Your task to perform on an android device: search for starred emails in the gmail app Image 0: 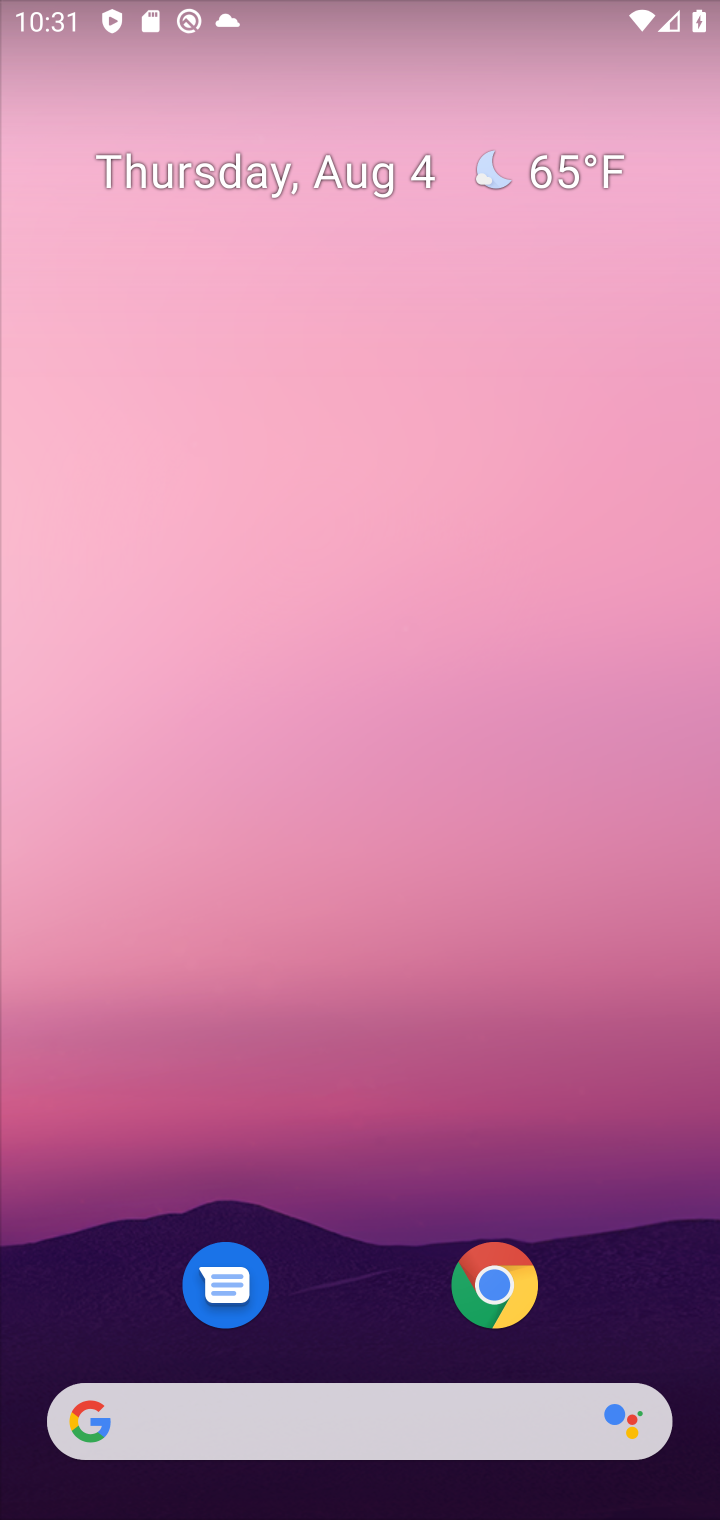
Step 0: drag from (377, 1319) to (431, 22)
Your task to perform on an android device: search for starred emails in the gmail app Image 1: 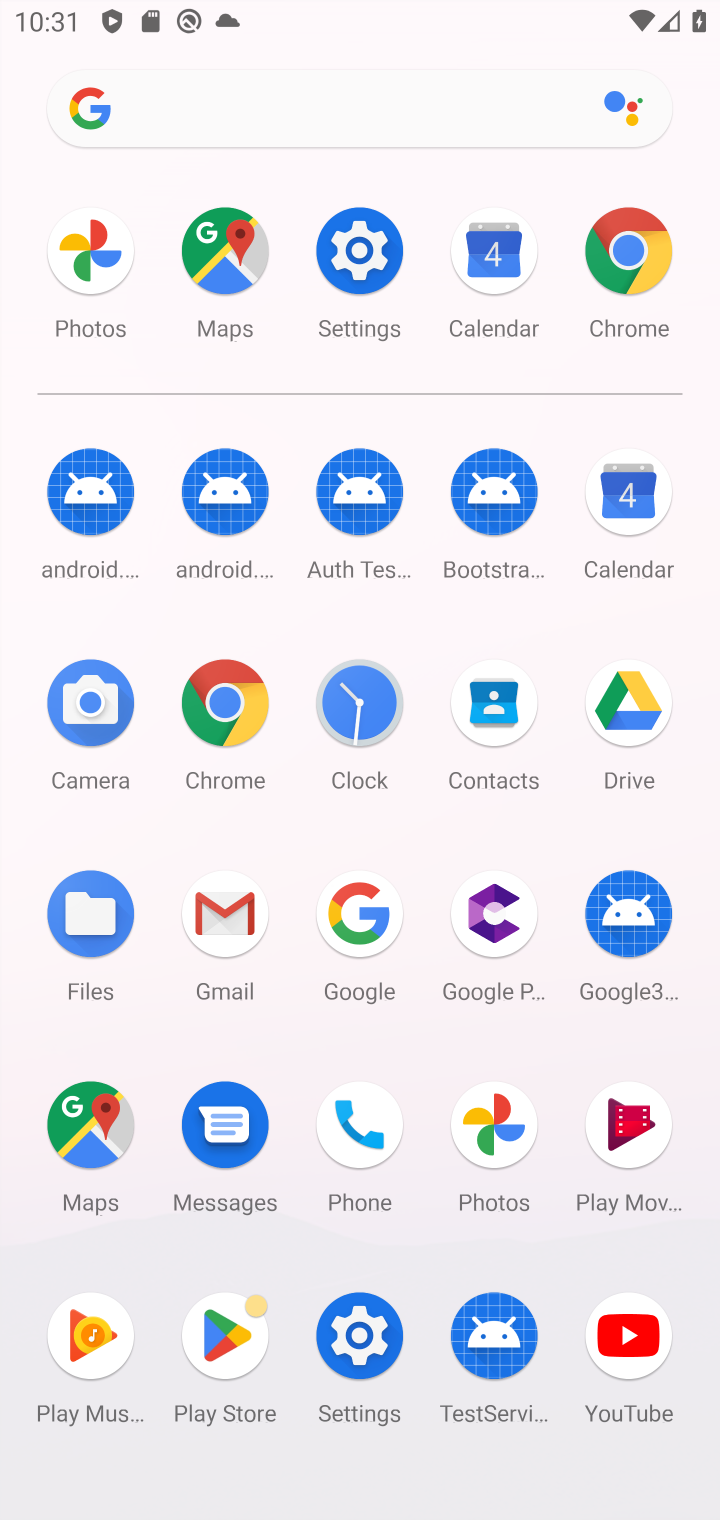
Step 1: click (244, 925)
Your task to perform on an android device: search for starred emails in the gmail app Image 2: 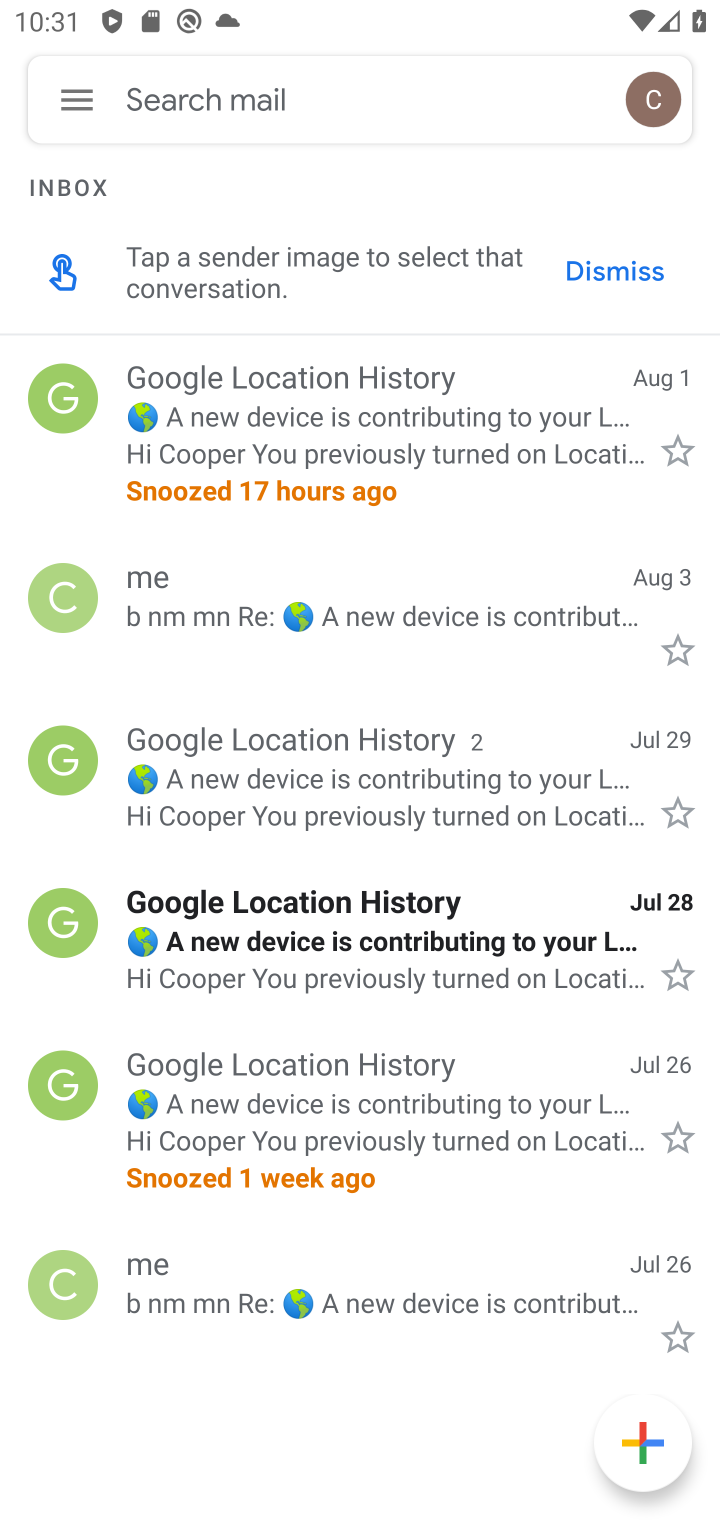
Step 2: click (89, 94)
Your task to perform on an android device: search for starred emails in the gmail app Image 3: 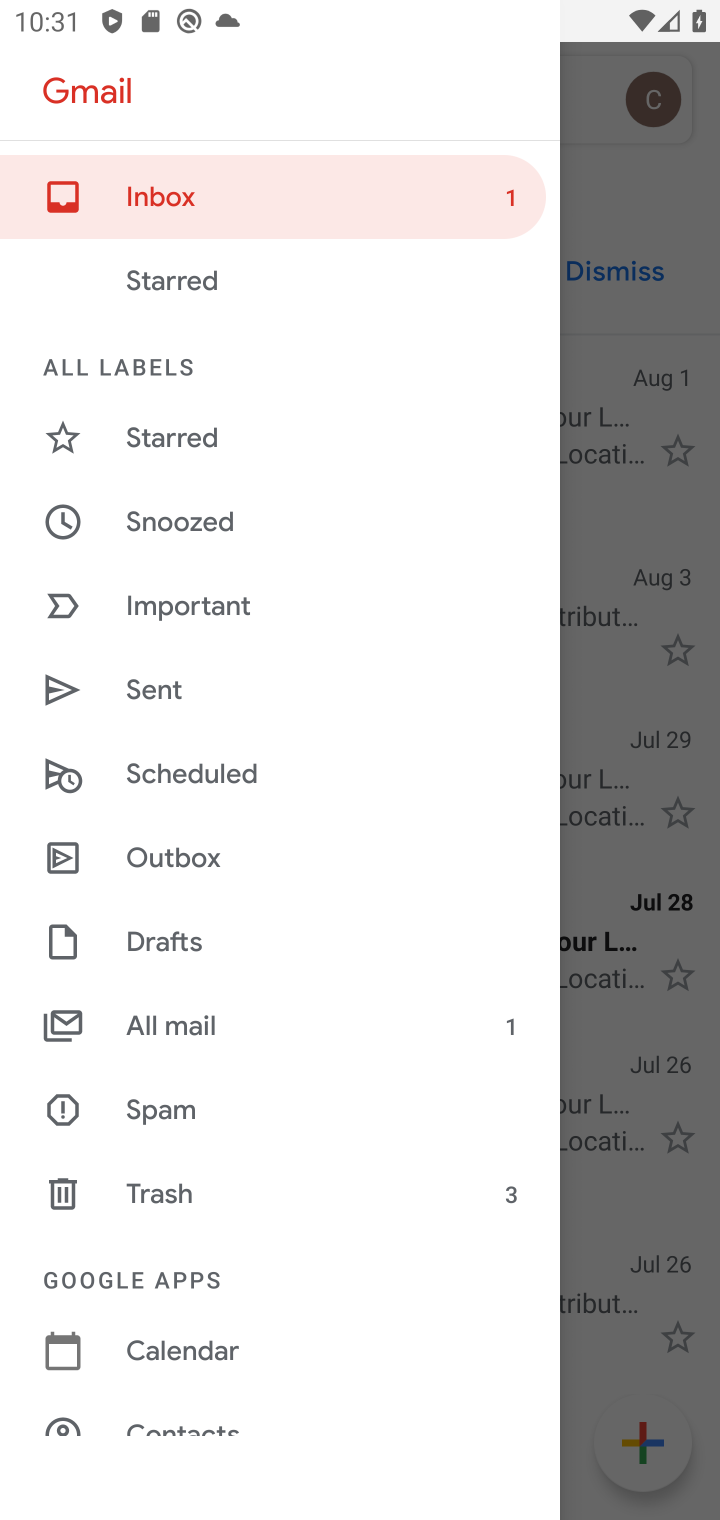
Step 3: click (158, 422)
Your task to perform on an android device: search for starred emails in the gmail app Image 4: 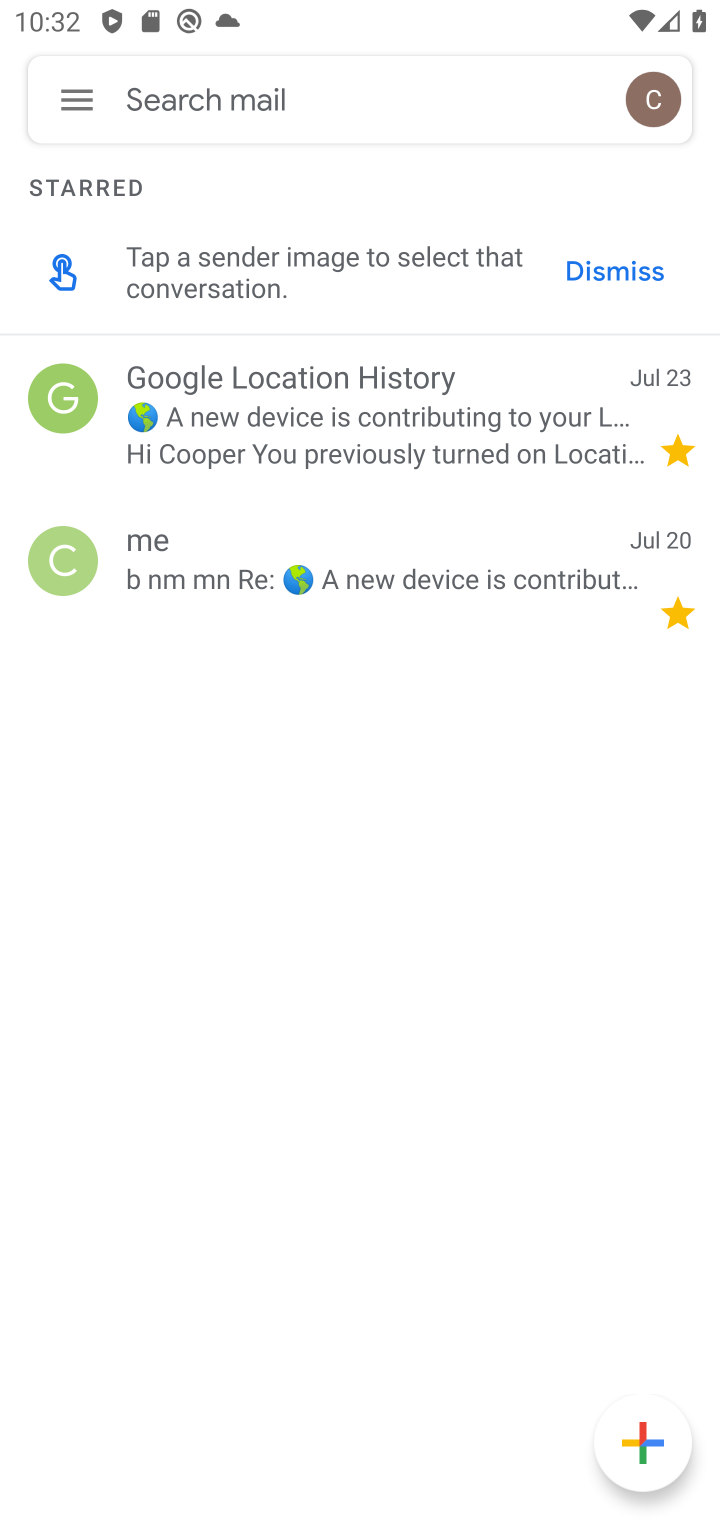
Step 4: task complete